Your task to perform on an android device: Open wifi settings Image 0: 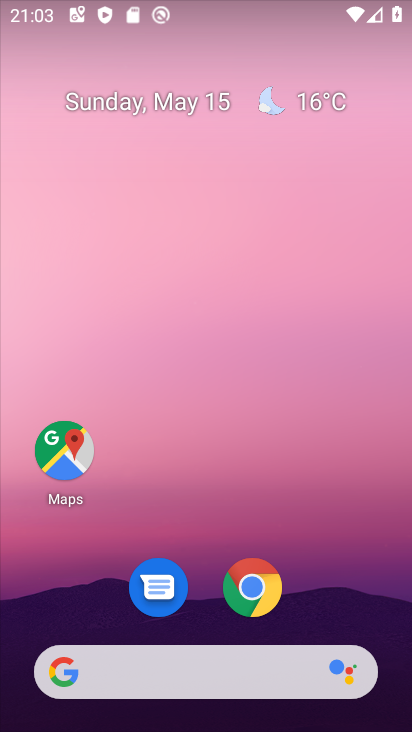
Step 0: drag from (228, 6) to (296, 654)
Your task to perform on an android device: Open wifi settings Image 1: 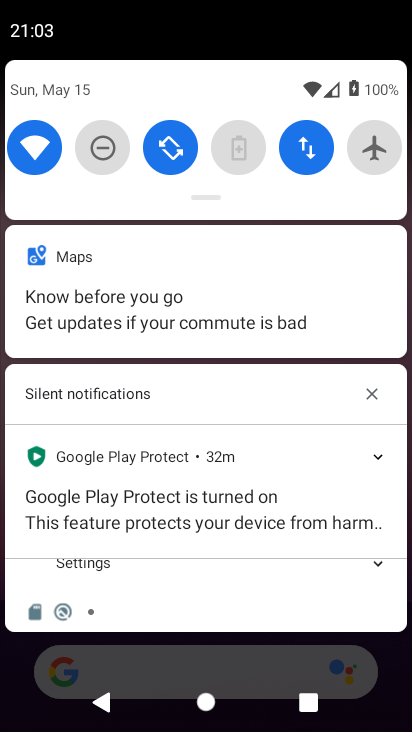
Step 1: click (311, 528)
Your task to perform on an android device: Open wifi settings Image 2: 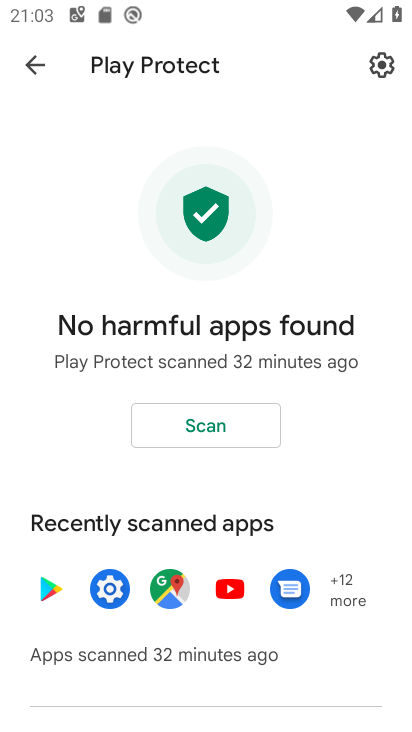
Step 2: click (206, 706)
Your task to perform on an android device: Open wifi settings Image 3: 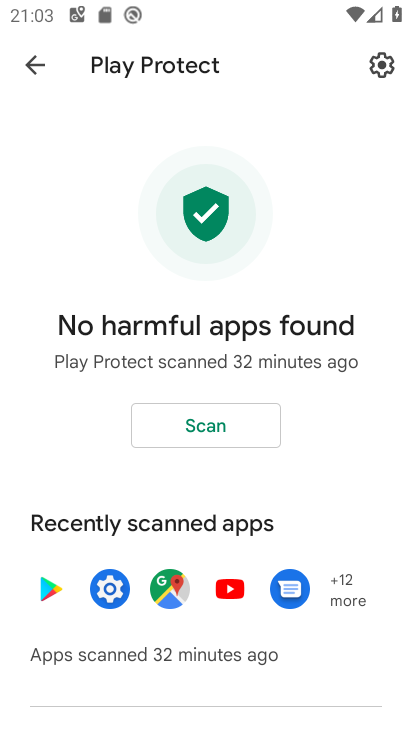
Step 3: press home button
Your task to perform on an android device: Open wifi settings Image 4: 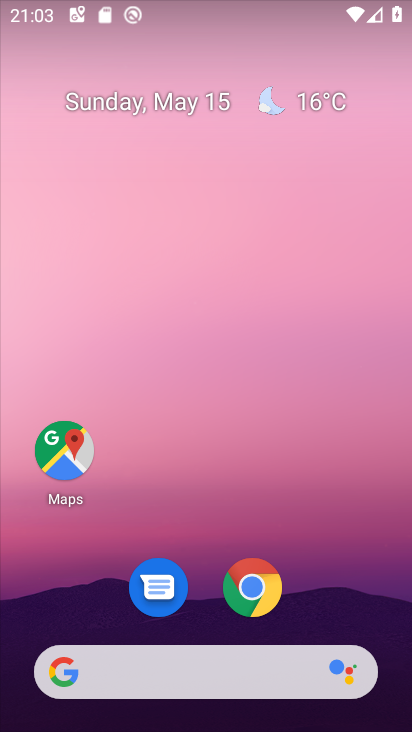
Step 4: drag from (339, 569) to (274, 0)
Your task to perform on an android device: Open wifi settings Image 5: 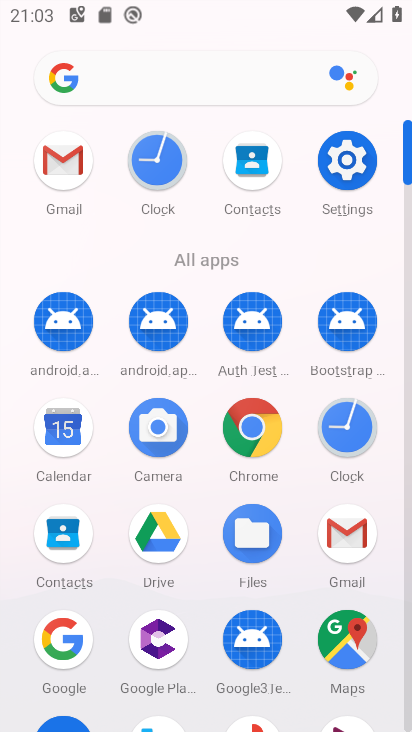
Step 5: click (348, 187)
Your task to perform on an android device: Open wifi settings Image 6: 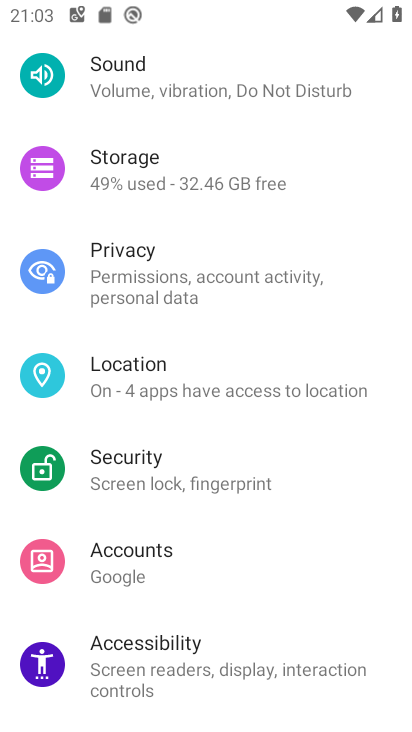
Step 6: drag from (195, 135) to (249, 720)
Your task to perform on an android device: Open wifi settings Image 7: 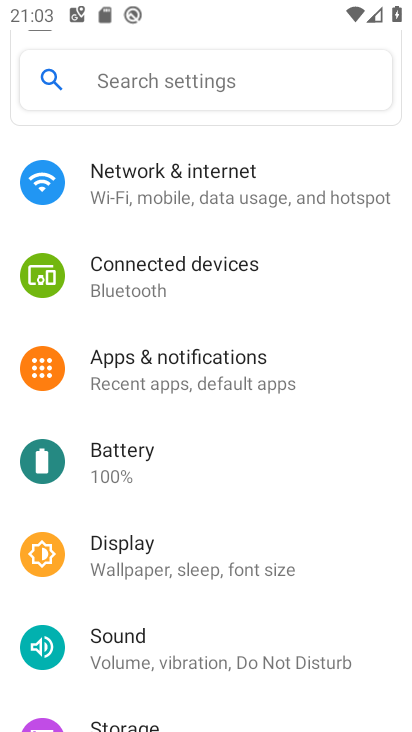
Step 7: drag from (204, 157) to (315, 610)
Your task to perform on an android device: Open wifi settings Image 8: 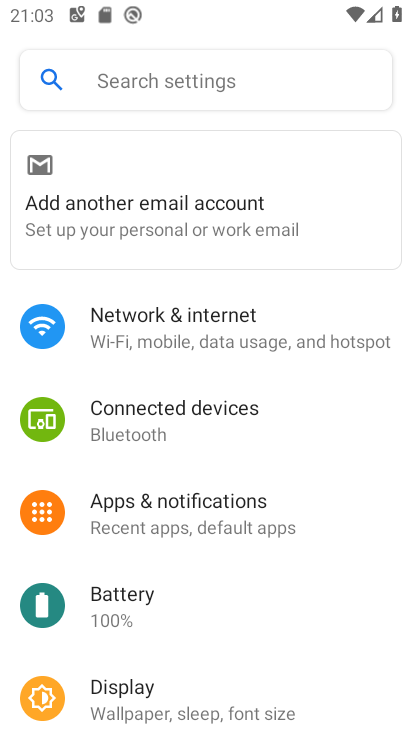
Step 8: drag from (185, 157) to (174, 654)
Your task to perform on an android device: Open wifi settings Image 9: 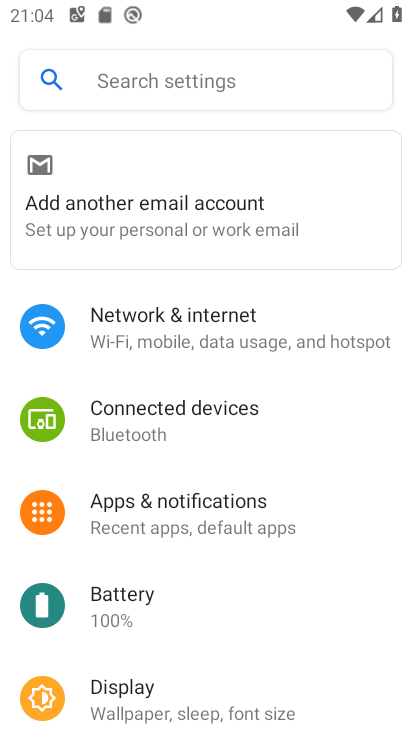
Step 9: click (157, 347)
Your task to perform on an android device: Open wifi settings Image 10: 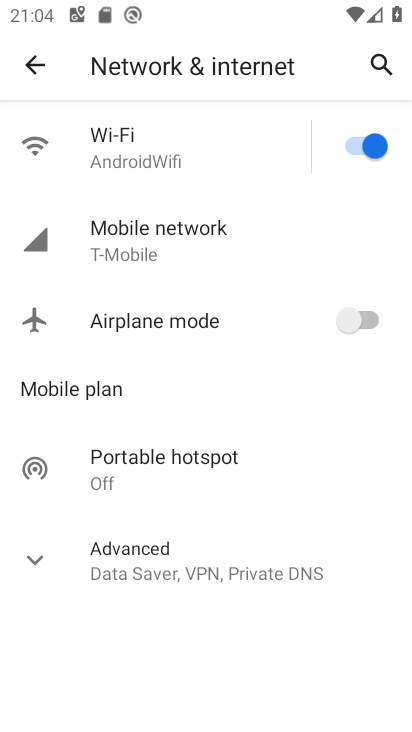
Step 10: click (150, 151)
Your task to perform on an android device: Open wifi settings Image 11: 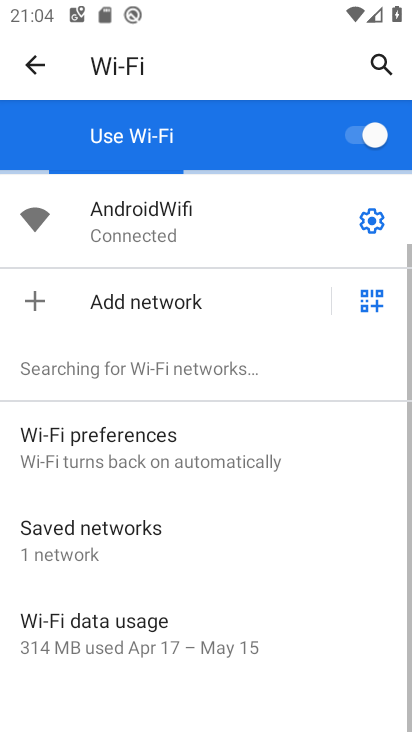
Step 11: click (372, 226)
Your task to perform on an android device: Open wifi settings Image 12: 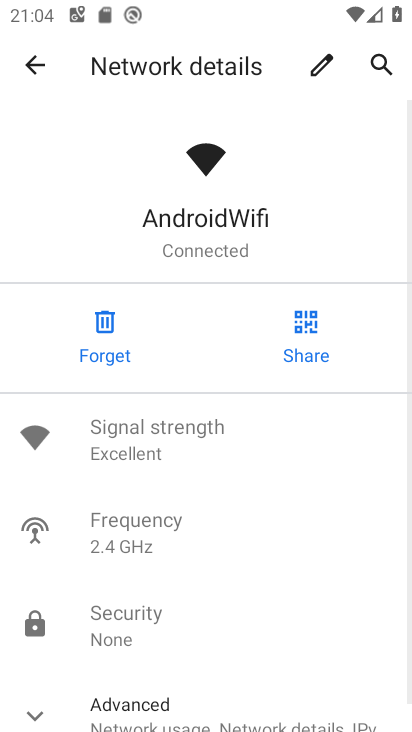
Step 12: task complete